Your task to perform on an android device: change notification settings in the gmail app Image 0: 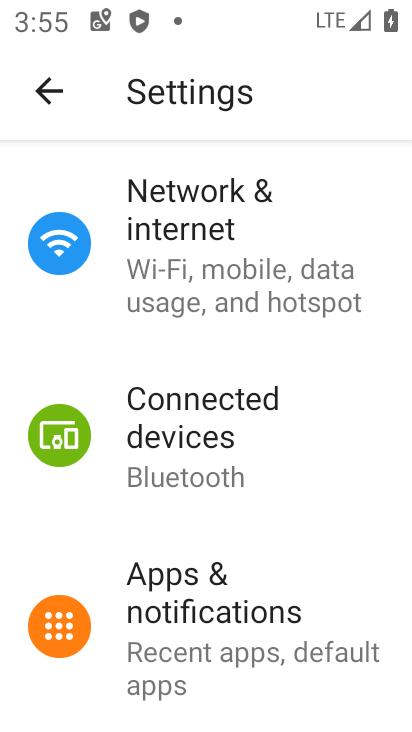
Step 0: press back button
Your task to perform on an android device: change notification settings in the gmail app Image 1: 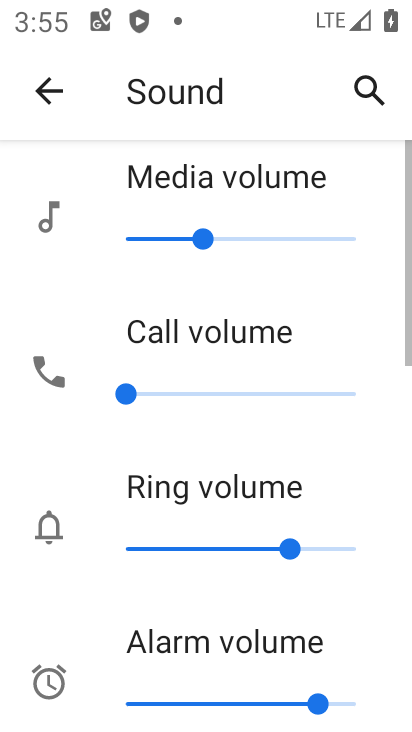
Step 1: press back button
Your task to perform on an android device: change notification settings in the gmail app Image 2: 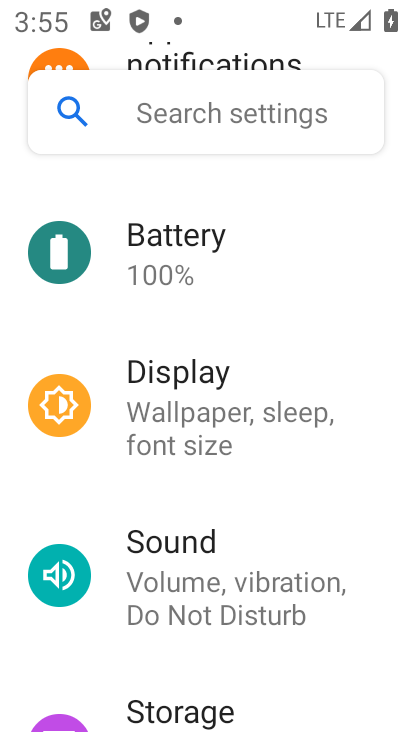
Step 2: drag from (185, 649) to (312, 60)
Your task to perform on an android device: change notification settings in the gmail app Image 3: 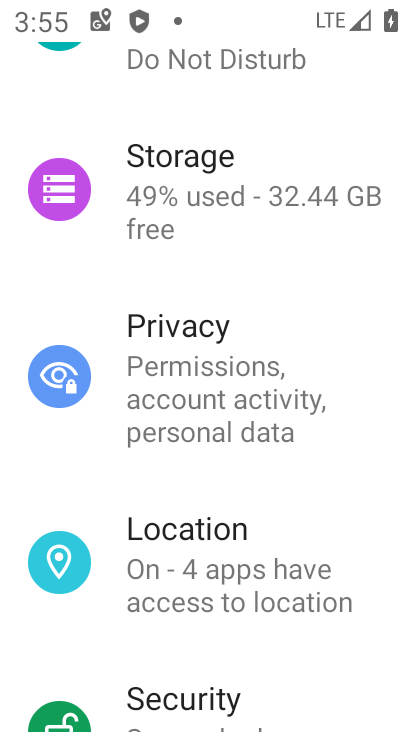
Step 3: press back button
Your task to perform on an android device: change notification settings in the gmail app Image 4: 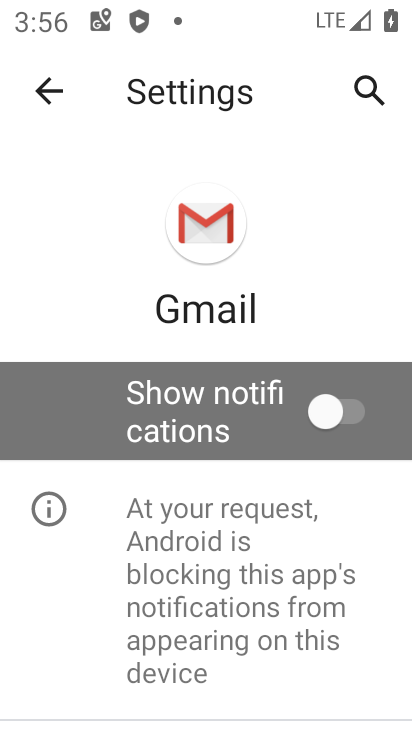
Step 4: drag from (169, 662) to (209, 142)
Your task to perform on an android device: change notification settings in the gmail app Image 5: 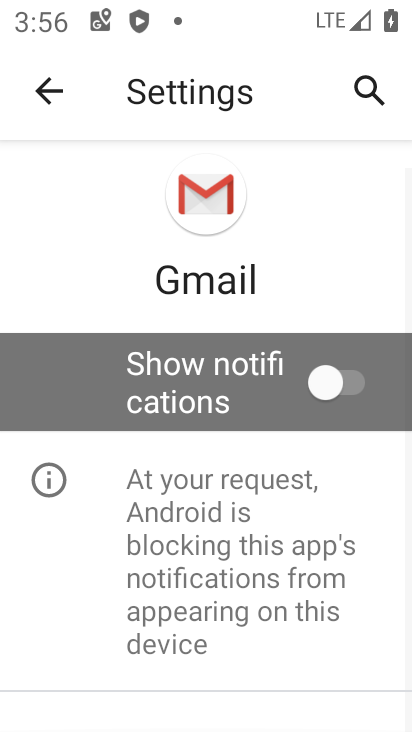
Step 5: click (322, 348)
Your task to perform on an android device: change notification settings in the gmail app Image 6: 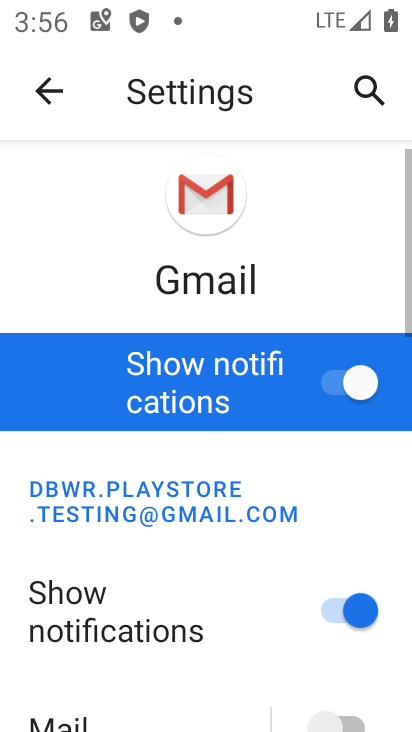
Step 6: drag from (174, 673) to (196, 247)
Your task to perform on an android device: change notification settings in the gmail app Image 7: 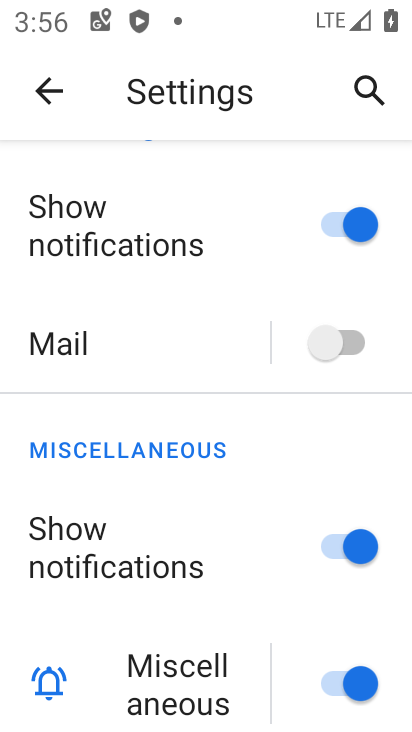
Step 7: click (353, 528)
Your task to perform on an android device: change notification settings in the gmail app Image 8: 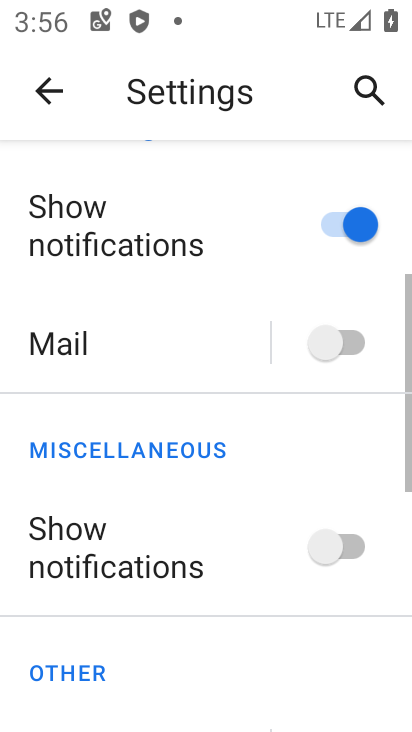
Step 8: task complete